Your task to perform on an android device: toggle javascript in the chrome app Image 0: 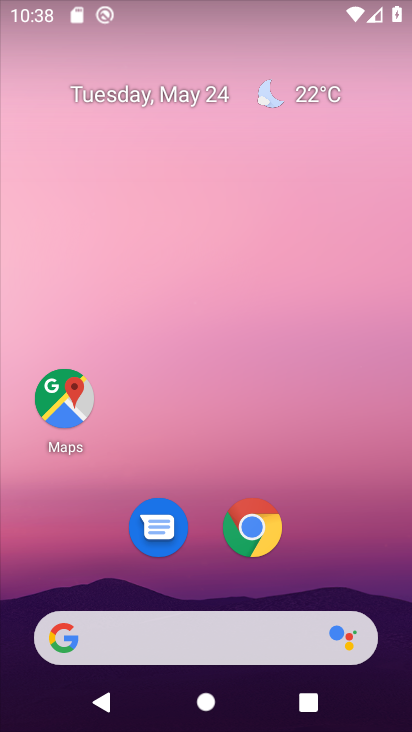
Step 0: press home button
Your task to perform on an android device: toggle javascript in the chrome app Image 1: 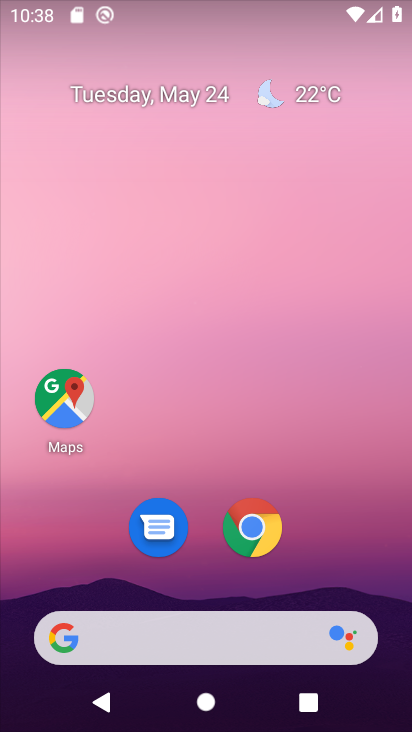
Step 1: click (252, 536)
Your task to perform on an android device: toggle javascript in the chrome app Image 2: 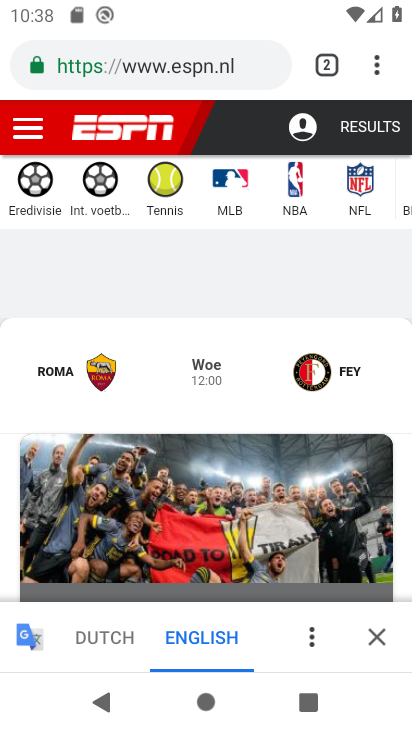
Step 2: drag from (378, 74) to (201, 584)
Your task to perform on an android device: toggle javascript in the chrome app Image 3: 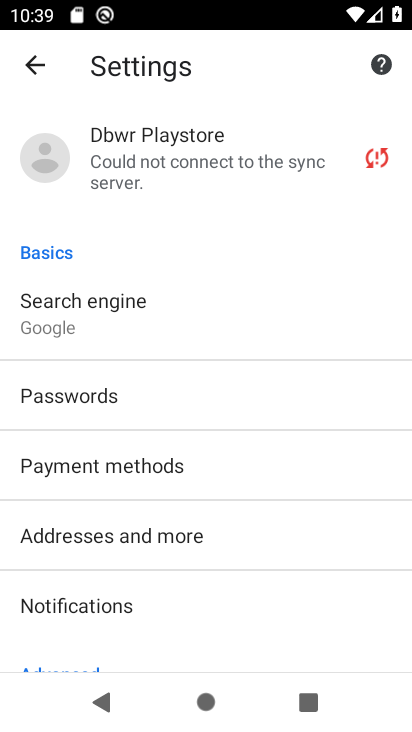
Step 3: drag from (179, 620) to (273, 370)
Your task to perform on an android device: toggle javascript in the chrome app Image 4: 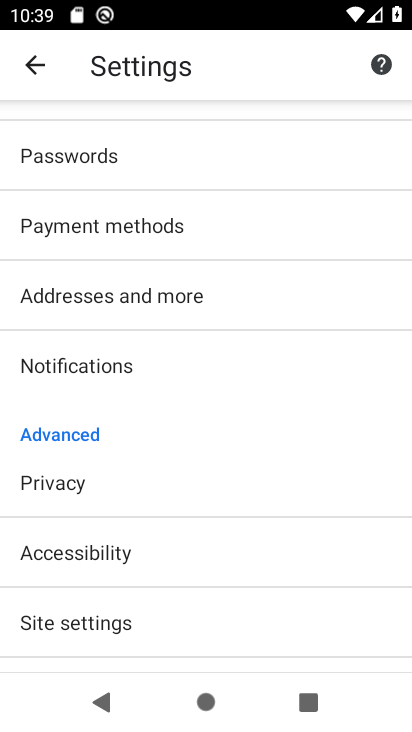
Step 4: click (118, 627)
Your task to perform on an android device: toggle javascript in the chrome app Image 5: 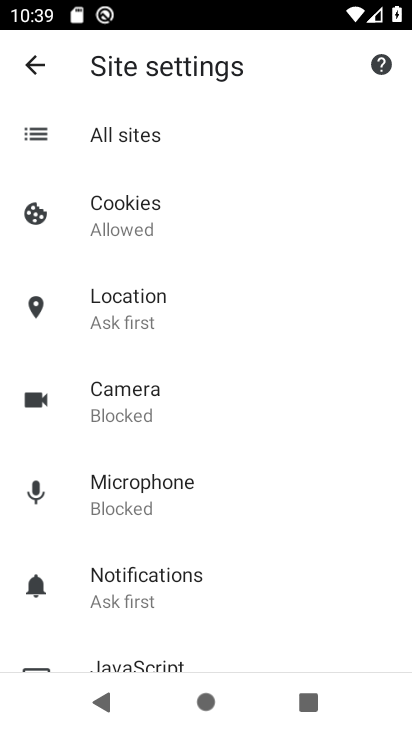
Step 5: drag from (287, 589) to (291, 367)
Your task to perform on an android device: toggle javascript in the chrome app Image 6: 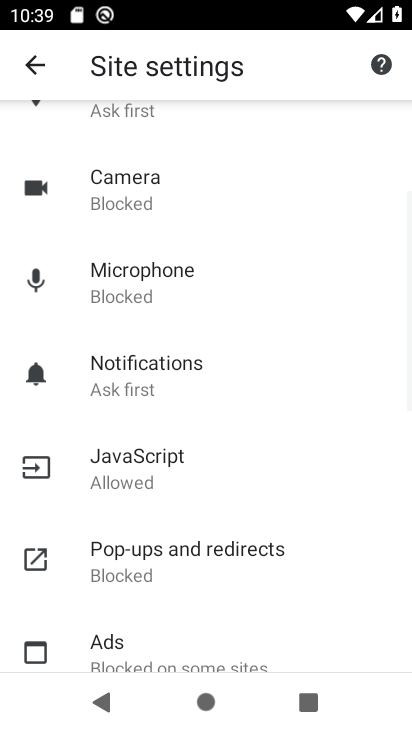
Step 6: click (142, 471)
Your task to perform on an android device: toggle javascript in the chrome app Image 7: 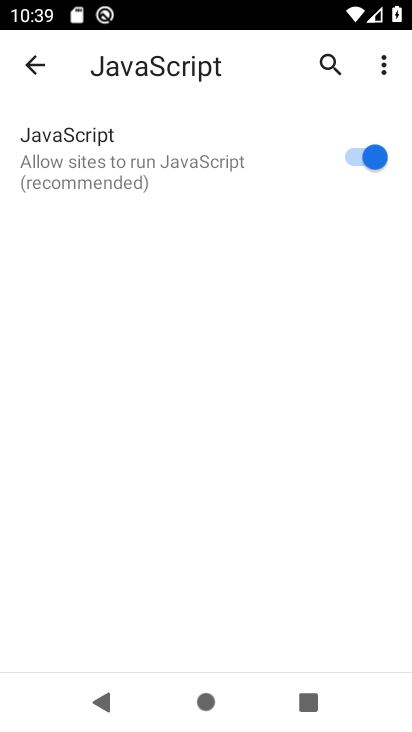
Step 7: click (358, 159)
Your task to perform on an android device: toggle javascript in the chrome app Image 8: 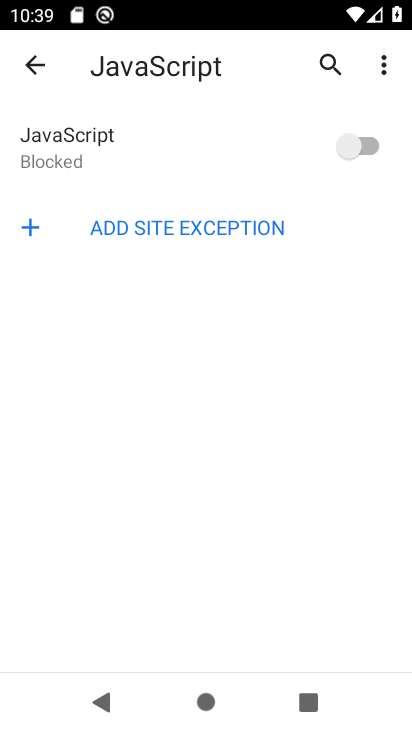
Step 8: task complete